Your task to perform on an android device: star an email in the gmail app Image 0: 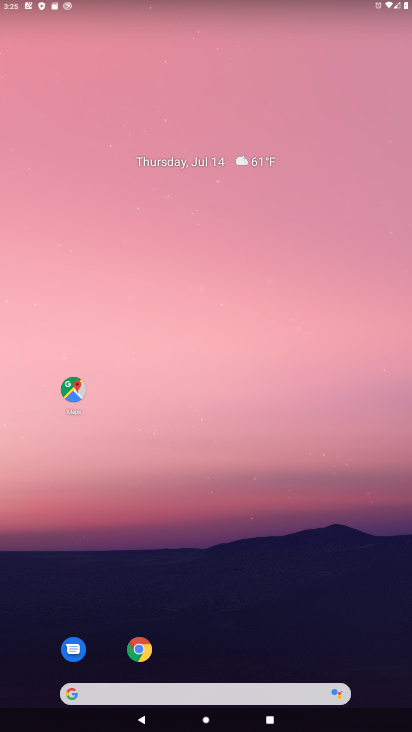
Step 0: drag from (207, 689) to (139, 42)
Your task to perform on an android device: star an email in the gmail app Image 1: 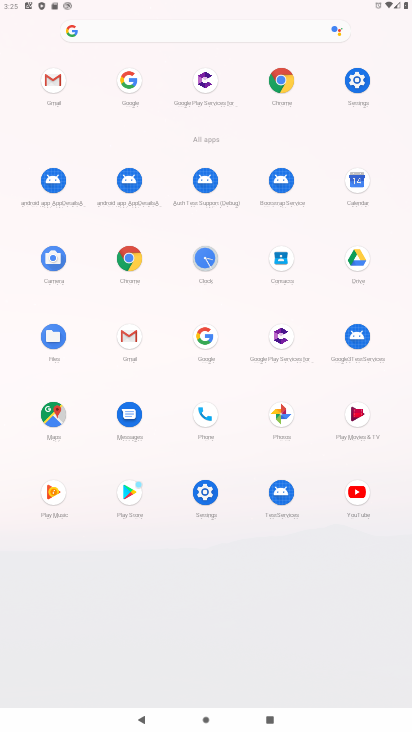
Step 1: click (125, 332)
Your task to perform on an android device: star an email in the gmail app Image 2: 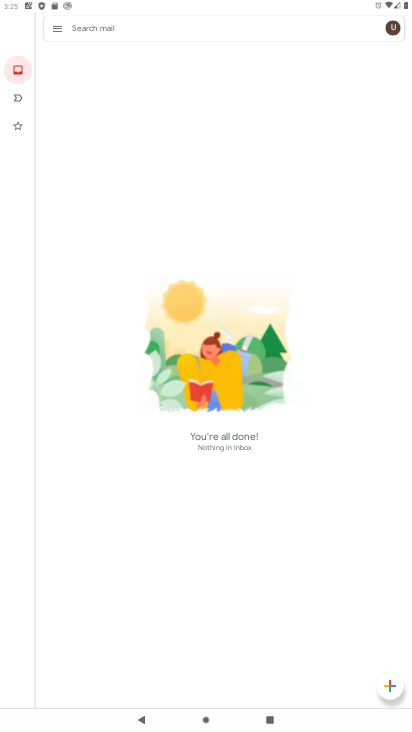
Step 2: click (44, 32)
Your task to perform on an android device: star an email in the gmail app Image 3: 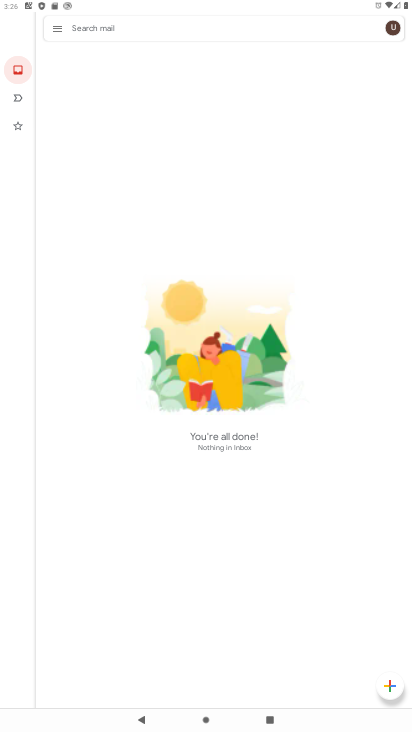
Step 3: task complete